Your task to perform on an android device: turn notification dots on Image 0: 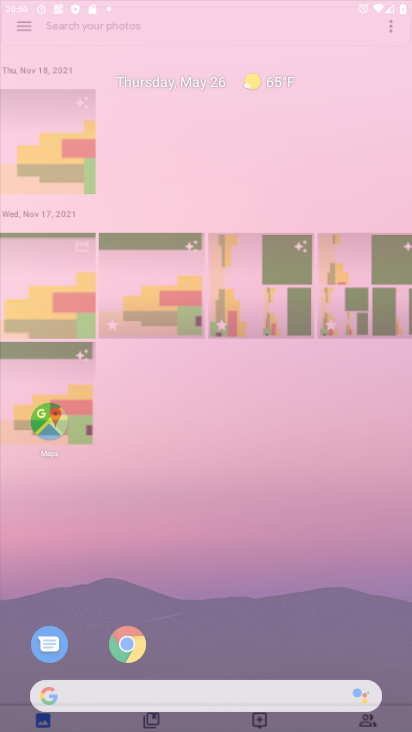
Step 0: click (266, 105)
Your task to perform on an android device: turn notification dots on Image 1: 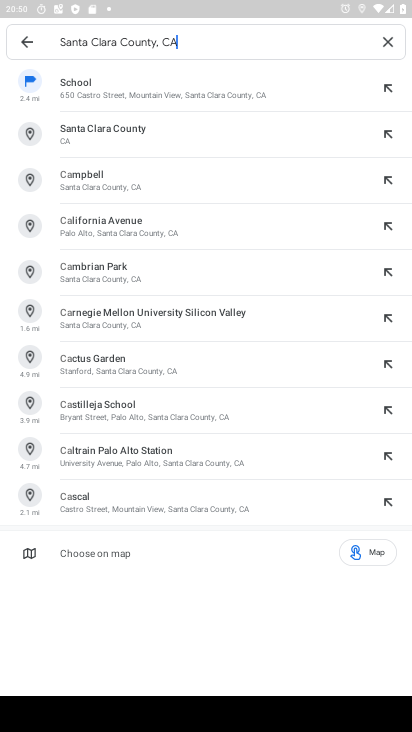
Step 1: press home button
Your task to perform on an android device: turn notification dots on Image 2: 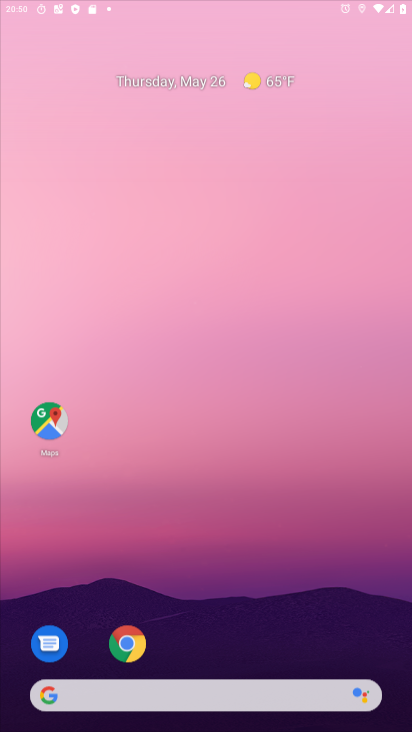
Step 2: drag from (180, 633) to (253, 300)
Your task to perform on an android device: turn notification dots on Image 3: 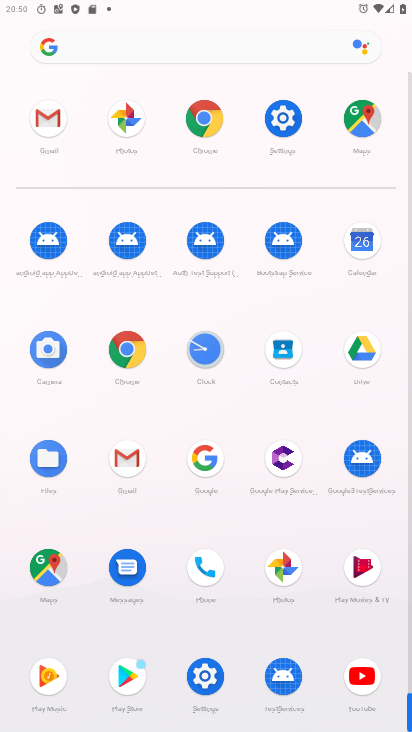
Step 3: click (304, 117)
Your task to perform on an android device: turn notification dots on Image 4: 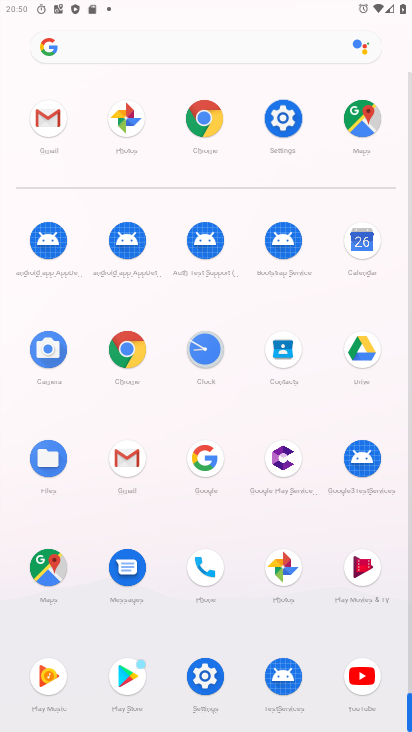
Step 4: click (296, 117)
Your task to perform on an android device: turn notification dots on Image 5: 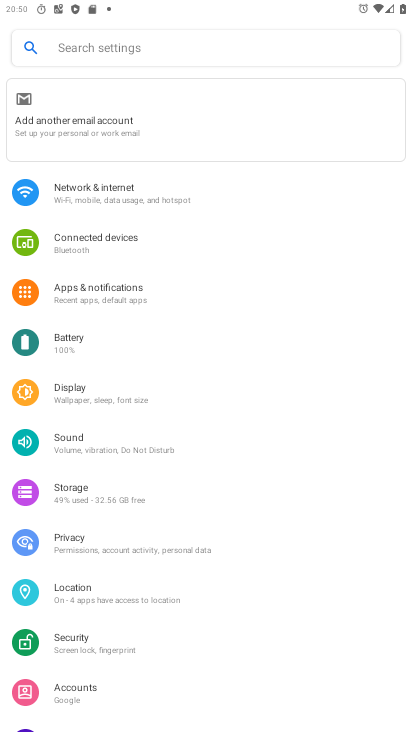
Step 5: click (165, 295)
Your task to perform on an android device: turn notification dots on Image 6: 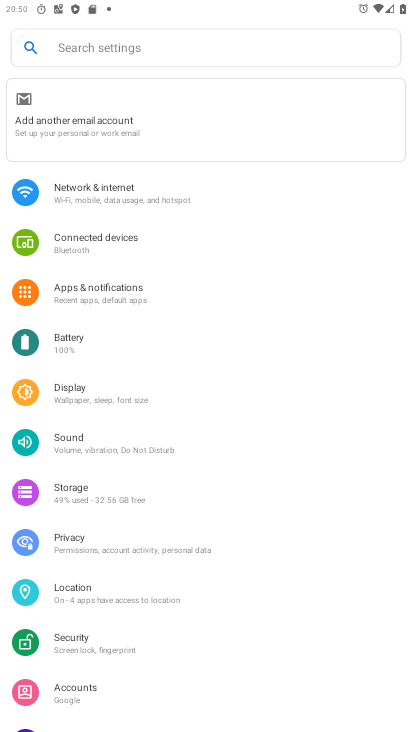
Step 6: click (165, 295)
Your task to perform on an android device: turn notification dots on Image 7: 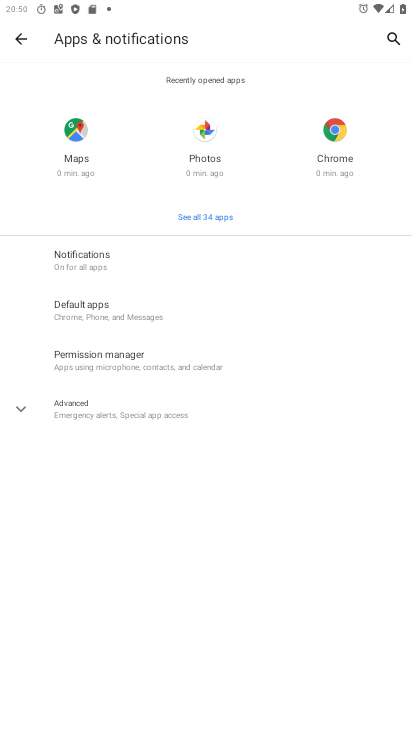
Step 7: click (160, 261)
Your task to perform on an android device: turn notification dots on Image 8: 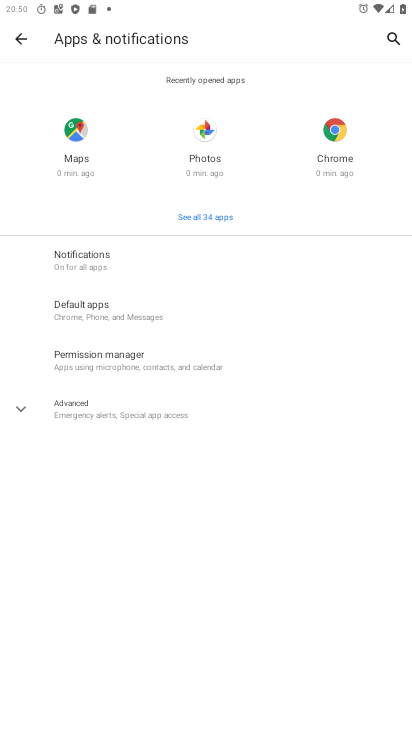
Step 8: click (160, 261)
Your task to perform on an android device: turn notification dots on Image 9: 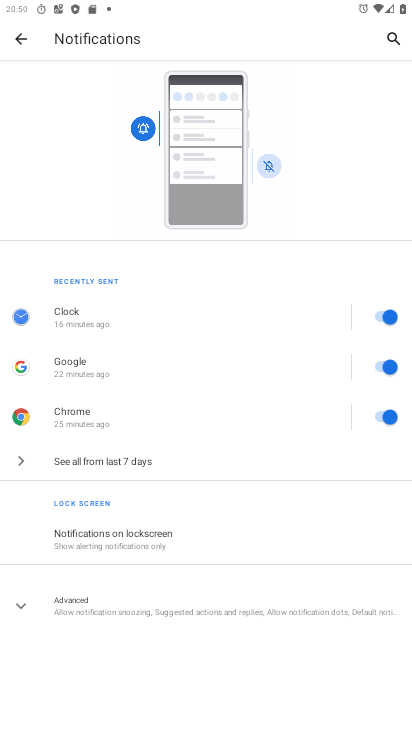
Step 9: click (64, 624)
Your task to perform on an android device: turn notification dots on Image 10: 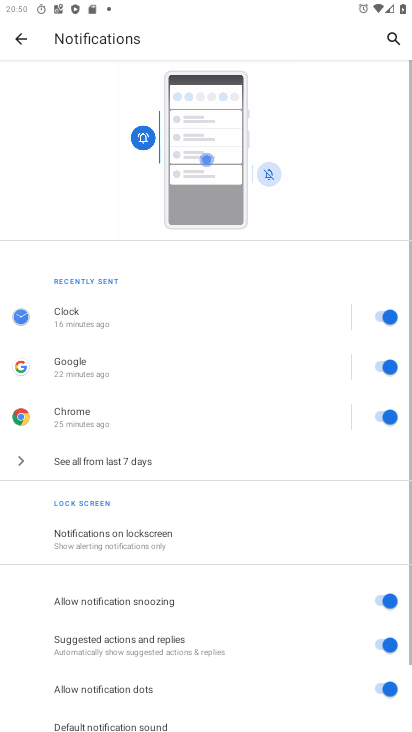
Step 10: task complete